Your task to perform on an android device: Open Maps and search for coffee Image 0: 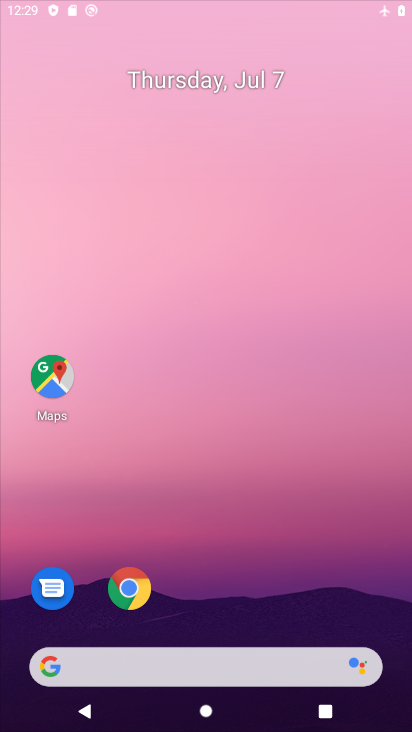
Step 0: click (181, 260)
Your task to perform on an android device: Open Maps and search for coffee Image 1: 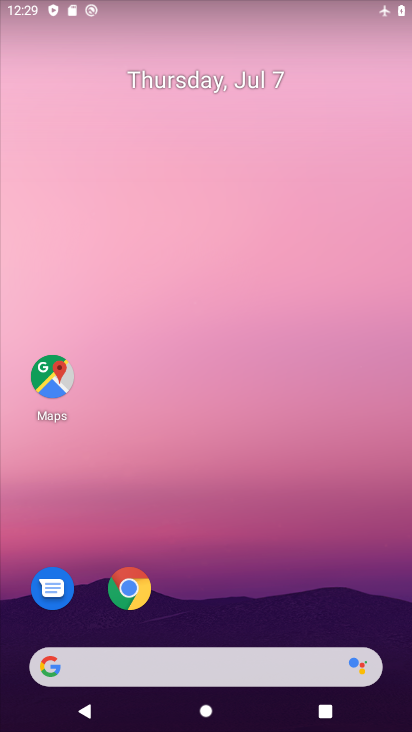
Step 1: drag from (201, 644) to (218, 250)
Your task to perform on an android device: Open Maps and search for coffee Image 2: 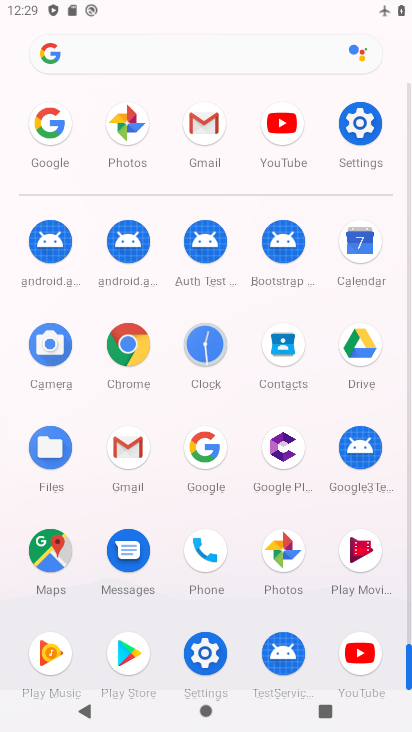
Step 2: click (44, 543)
Your task to perform on an android device: Open Maps and search for coffee Image 3: 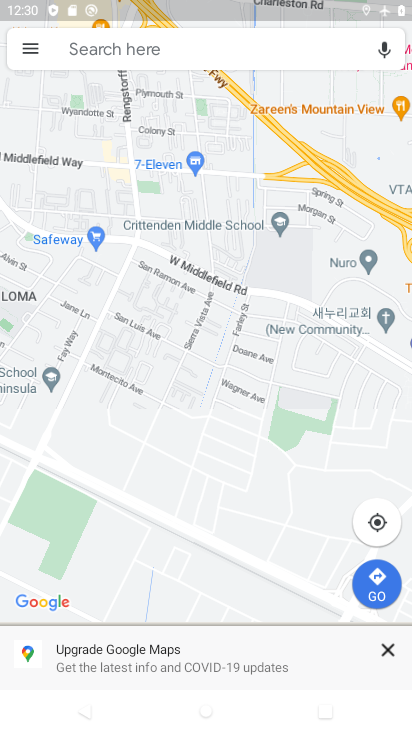
Step 3: click (139, 42)
Your task to perform on an android device: Open Maps and search for coffee Image 4: 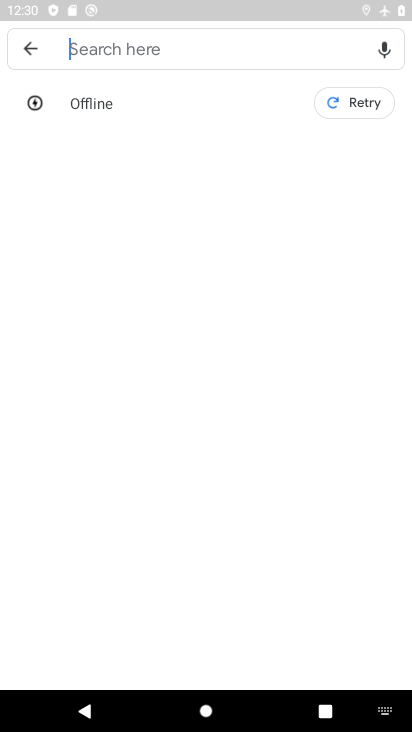
Step 4: type "coffee"
Your task to perform on an android device: Open Maps and search for coffee Image 5: 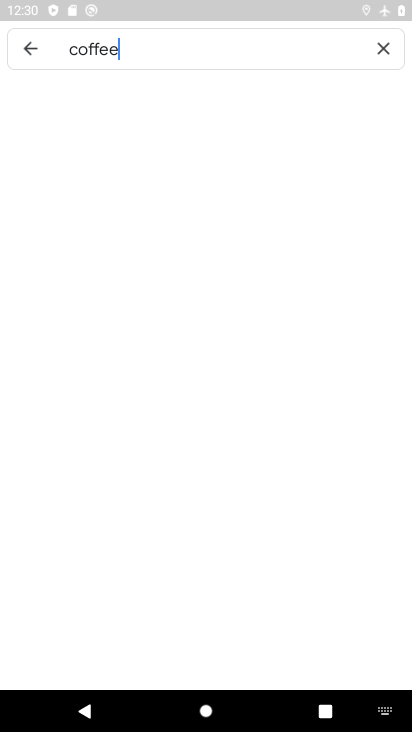
Step 5: type ""
Your task to perform on an android device: Open Maps and search for coffee Image 6: 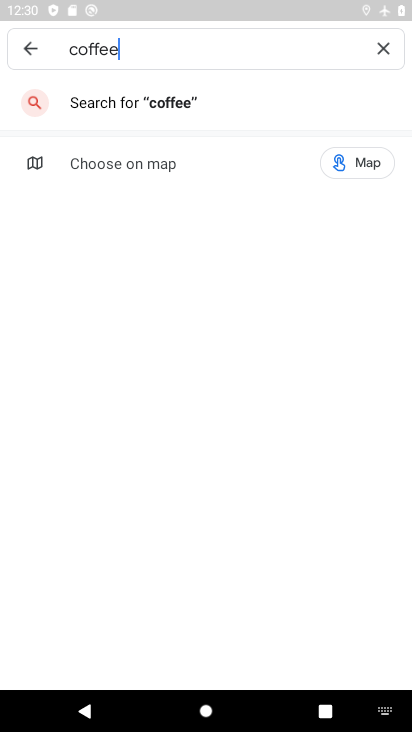
Step 6: click (181, 102)
Your task to perform on an android device: Open Maps and search for coffee Image 7: 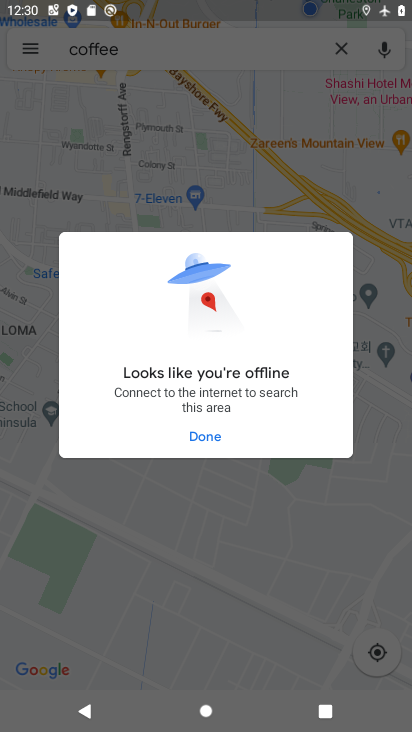
Step 7: task complete